Your task to perform on an android device: turn pop-ups on in chrome Image 0: 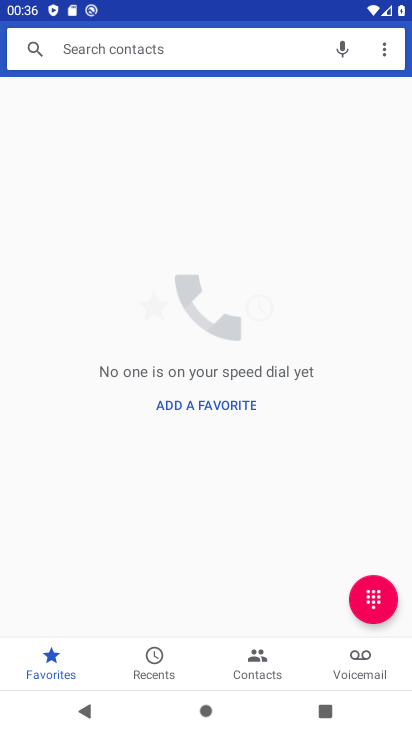
Step 0: press home button
Your task to perform on an android device: turn pop-ups on in chrome Image 1: 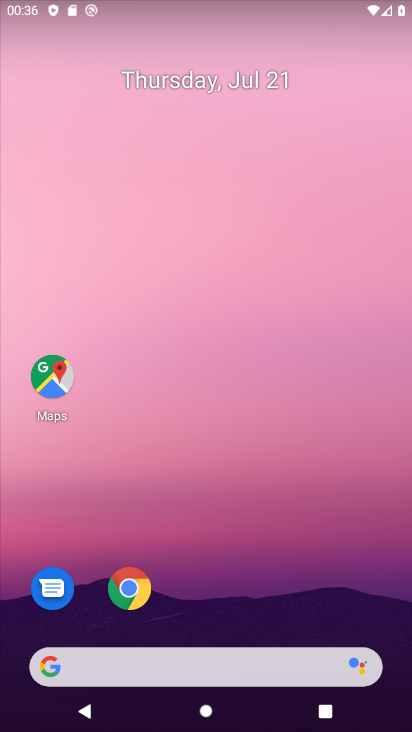
Step 1: click (143, 595)
Your task to perform on an android device: turn pop-ups on in chrome Image 2: 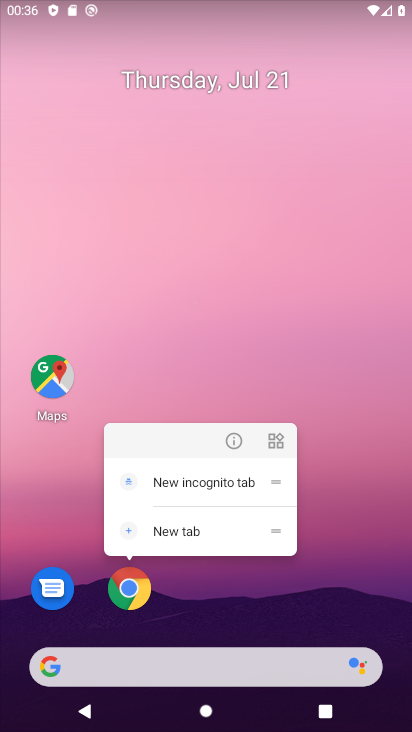
Step 2: click (120, 587)
Your task to perform on an android device: turn pop-ups on in chrome Image 3: 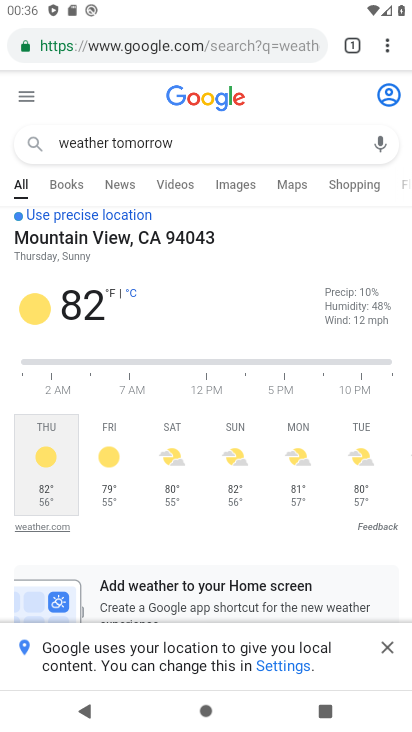
Step 3: click (395, 40)
Your task to perform on an android device: turn pop-ups on in chrome Image 4: 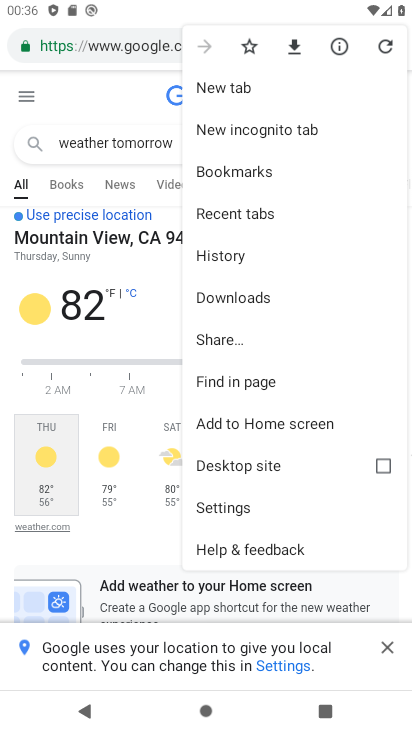
Step 4: click (249, 505)
Your task to perform on an android device: turn pop-ups on in chrome Image 5: 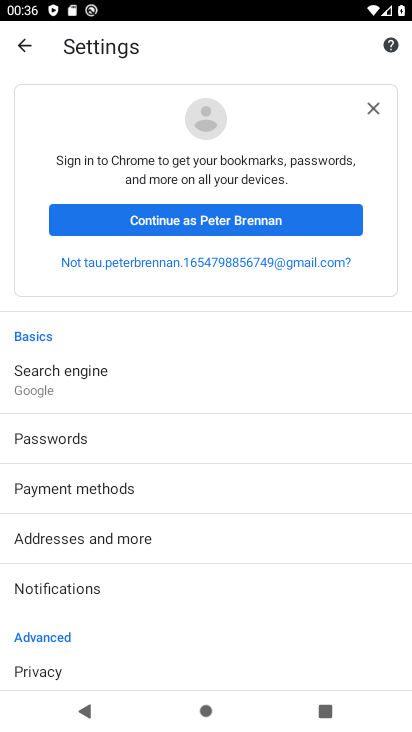
Step 5: drag from (110, 642) to (107, 384)
Your task to perform on an android device: turn pop-ups on in chrome Image 6: 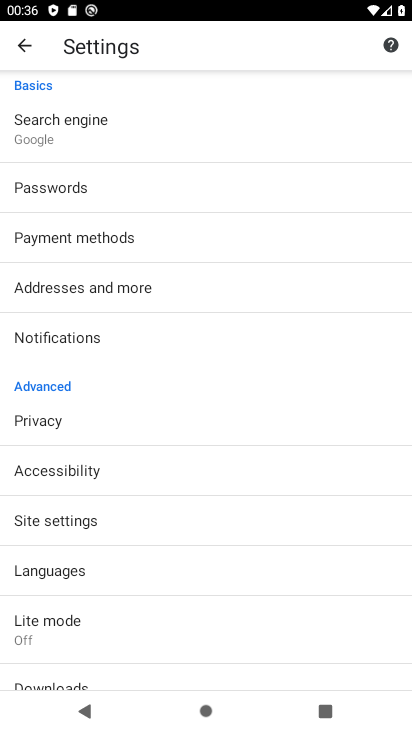
Step 6: click (78, 516)
Your task to perform on an android device: turn pop-ups on in chrome Image 7: 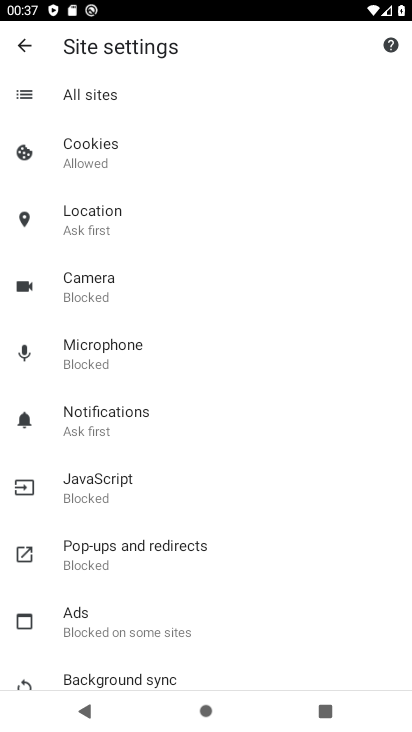
Step 7: click (141, 543)
Your task to perform on an android device: turn pop-ups on in chrome Image 8: 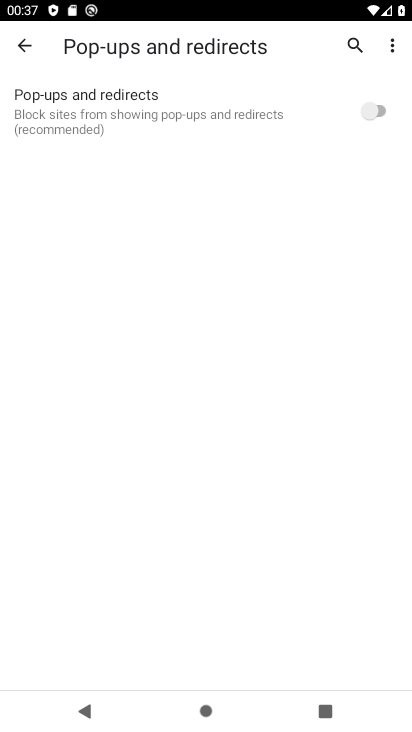
Step 8: click (370, 108)
Your task to perform on an android device: turn pop-ups on in chrome Image 9: 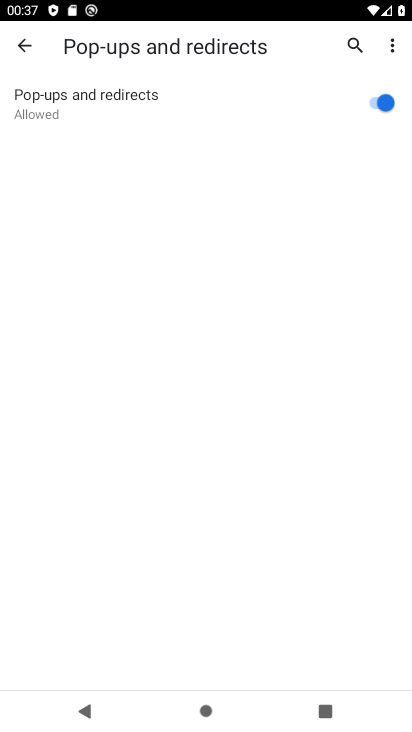
Step 9: task complete